Your task to perform on an android device: turn off location history Image 0: 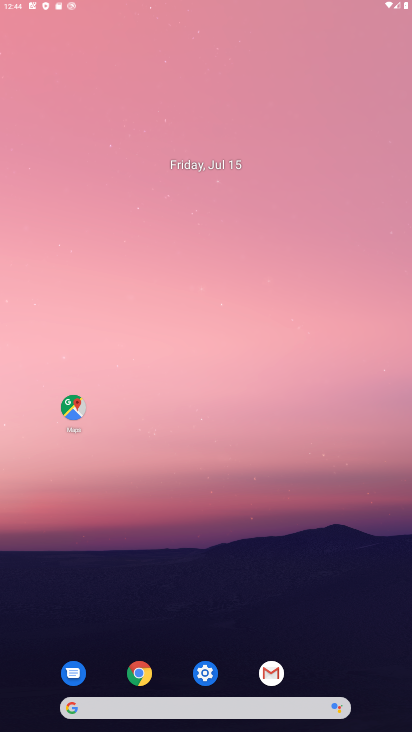
Step 0: press home button
Your task to perform on an android device: turn off location history Image 1: 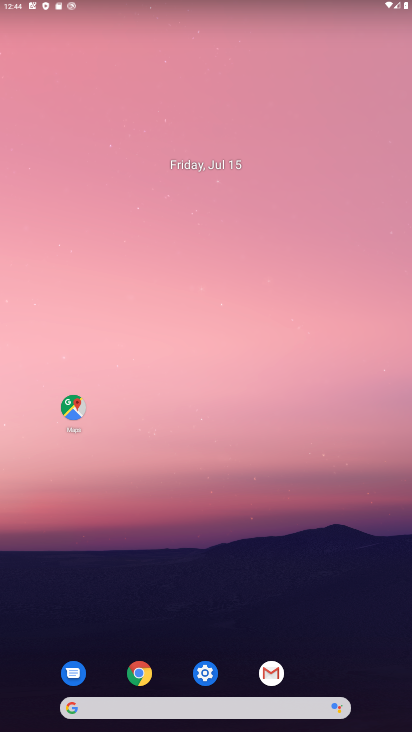
Step 1: click (210, 673)
Your task to perform on an android device: turn off location history Image 2: 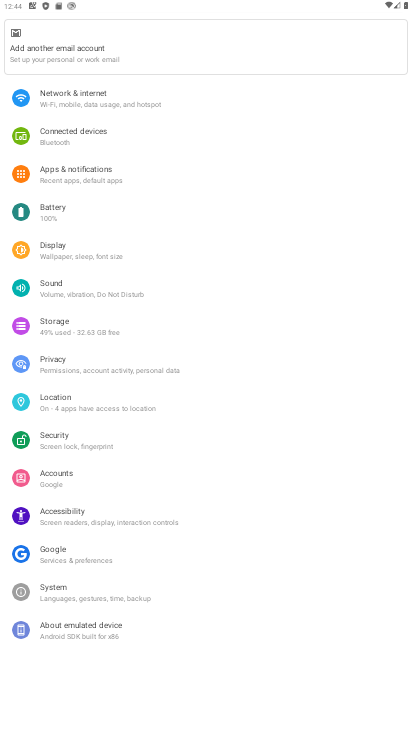
Step 2: click (85, 393)
Your task to perform on an android device: turn off location history Image 3: 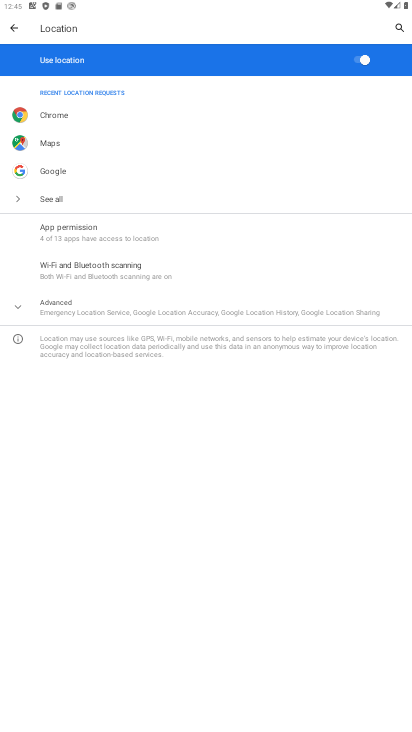
Step 3: click (20, 299)
Your task to perform on an android device: turn off location history Image 4: 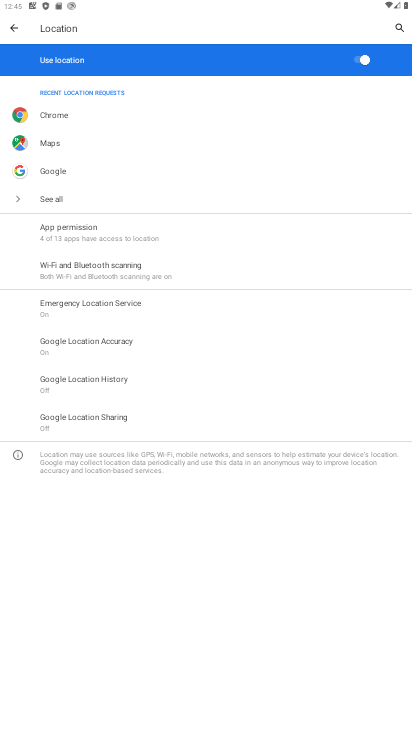
Step 4: click (125, 381)
Your task to perform on an android device: turn off location history Image 5: 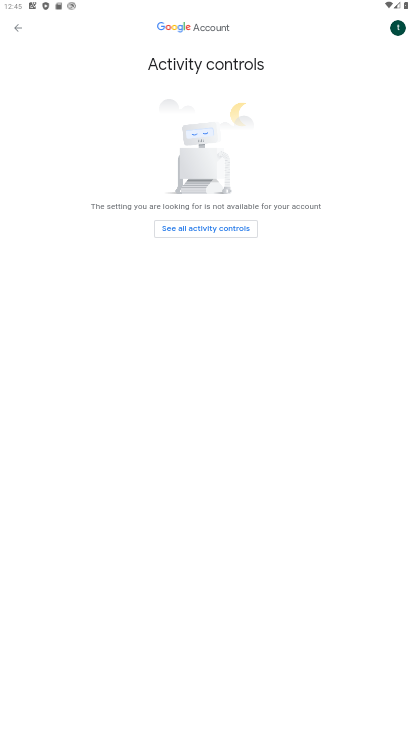
Step 5: click (200, 229)
Your task to perform on an android device: turn off location history Image 6: 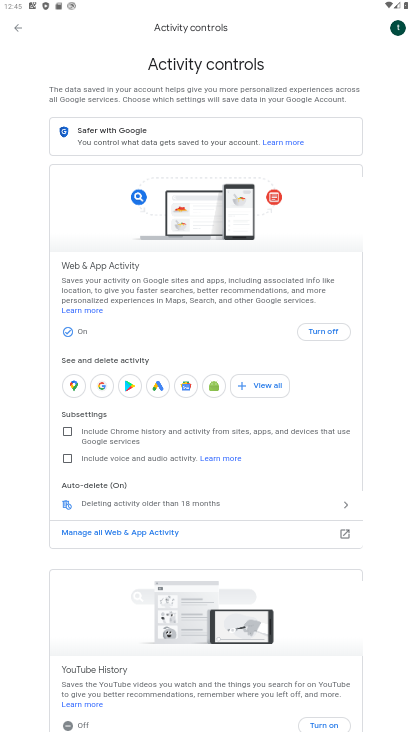
Step 6: task complete